Your task to perform on an android device: set the stopwatch Image 0: 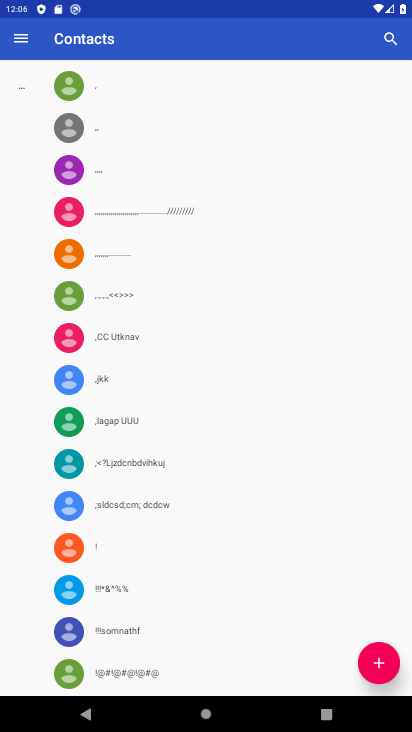
Step 0: press home button
Your task to perform on an android device: set the stopwatch Image 1: 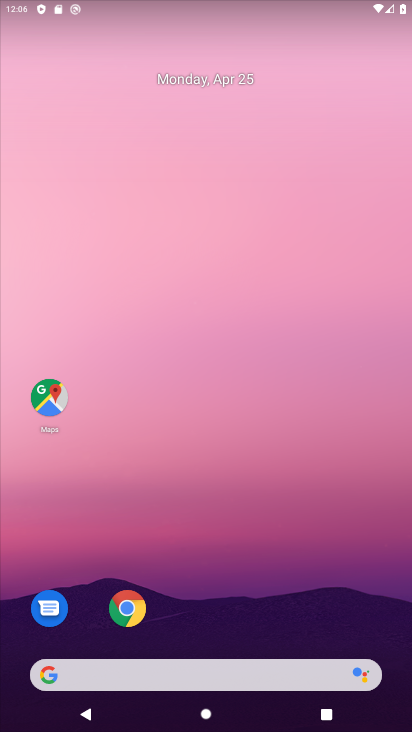
Step 1: drag from (228, 726) to (229, 108)
Your task to perform on an android device: set the stopwatch Image 2: 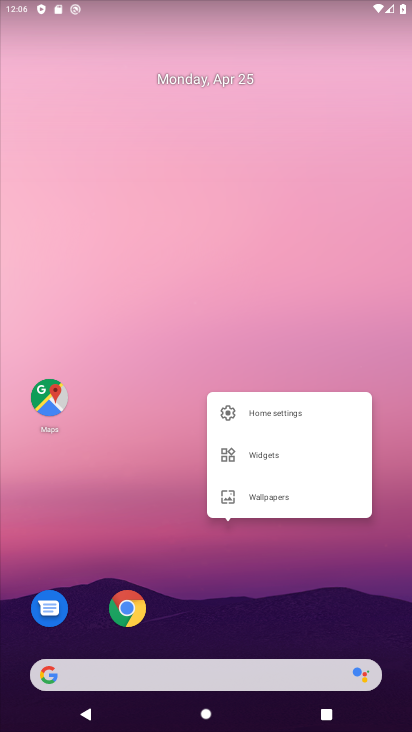
Step 2: click (237, 236)
Your task to perform on an android device: set the stopwatch Image 3: 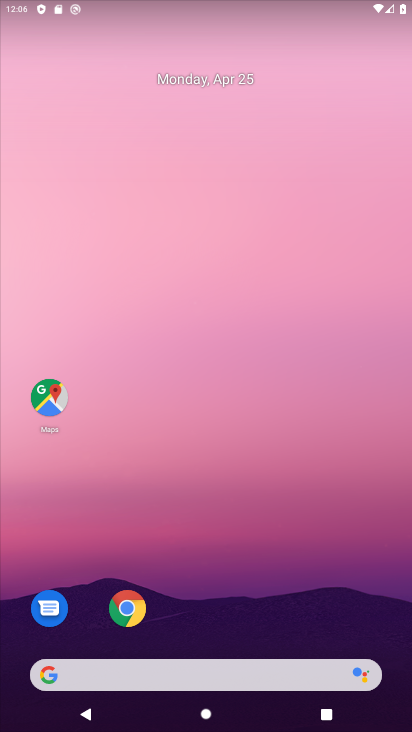
Step 3: drag from (225, 730) to (222, 232)
Your task to perform on an android device: set the stopwatch Image 4: 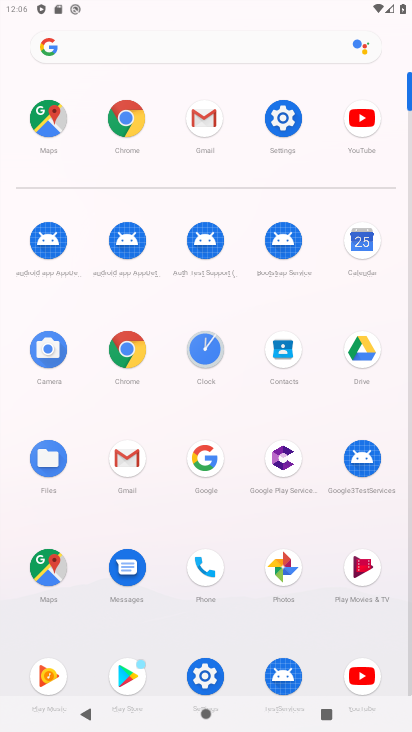
Step 4: click (208, 348)
Your task to perform on an android device: set the stopwatch Image 5: 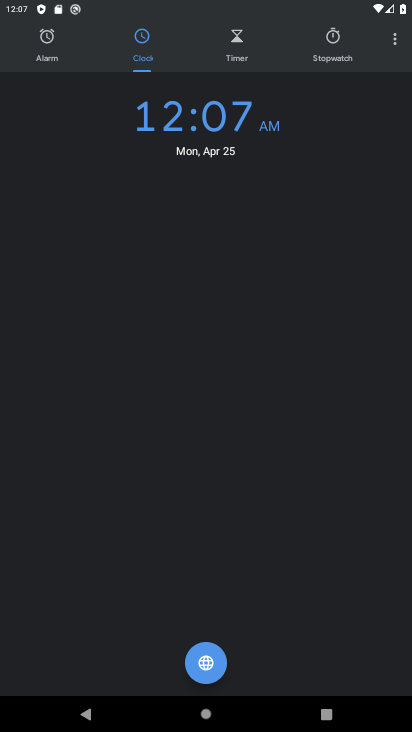
Step 5: click (326, 35)
Your task to perform on an android device: set the stopwatch Image 6: 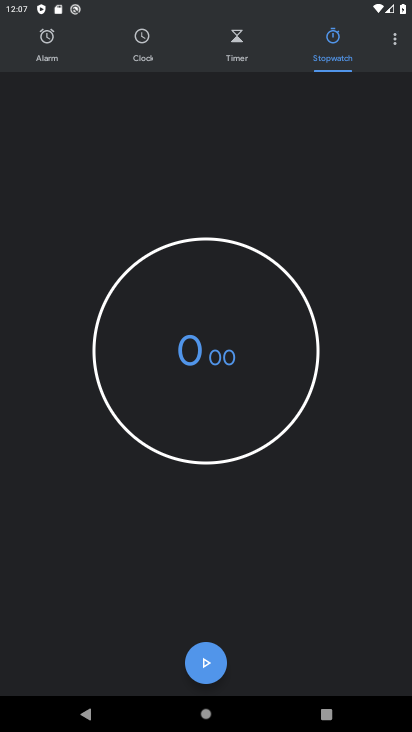
Step 6: click (228, 362)
Your task to perform on an android device: set the stopwatch Image 7: 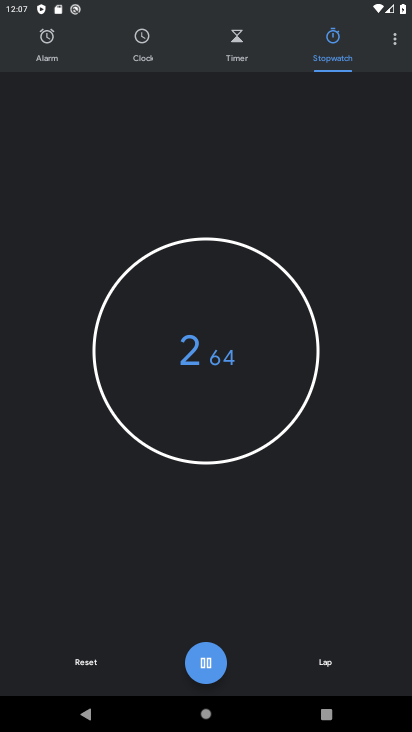
Step 7: type "99"
Your task to perform on an android device: set the stopwatch Image 8: 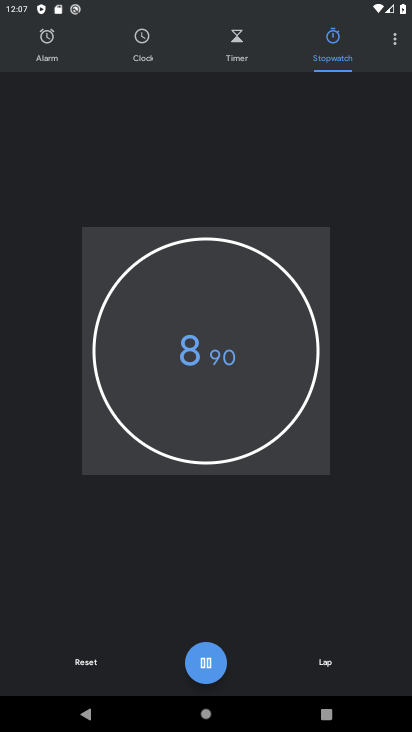
Step 8: task complete